Your task to perform on an android device: Is it going to rain this weekend? Image 0: 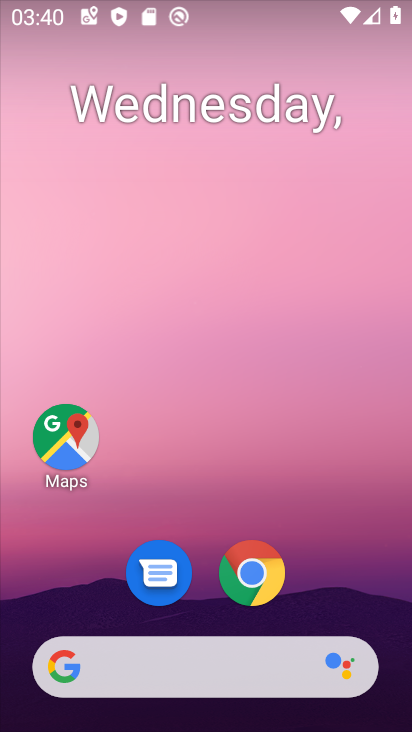
Step 0: drag from (335, 577) to (245, 70)
Your task to perform on an android device: Is it going to rain this weekend? Image 1: 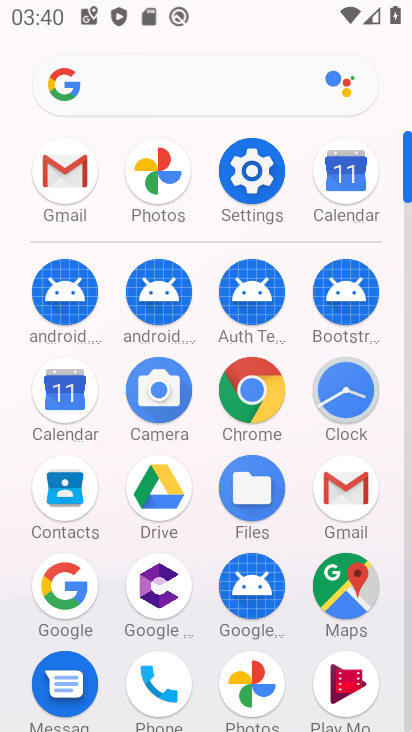
Step 1: click (59, 585)
Your task to perform on an android device: Is it going to rain this weekend? Image 2: 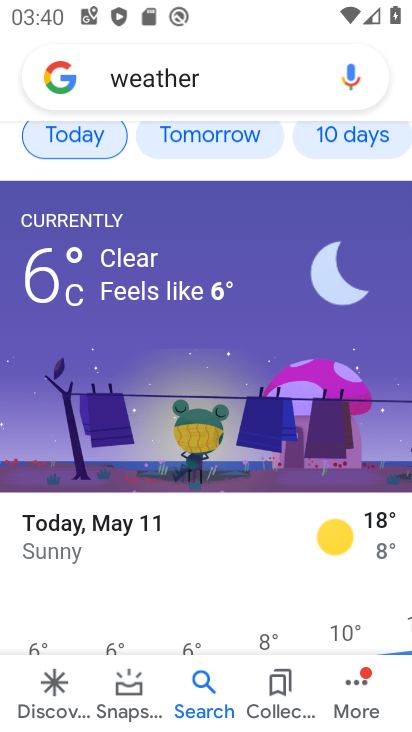
Step 2: drag from (210, 219) to (239, 396)
Your task to perform on an android device: Is it going to rain this weekend? Image 3: 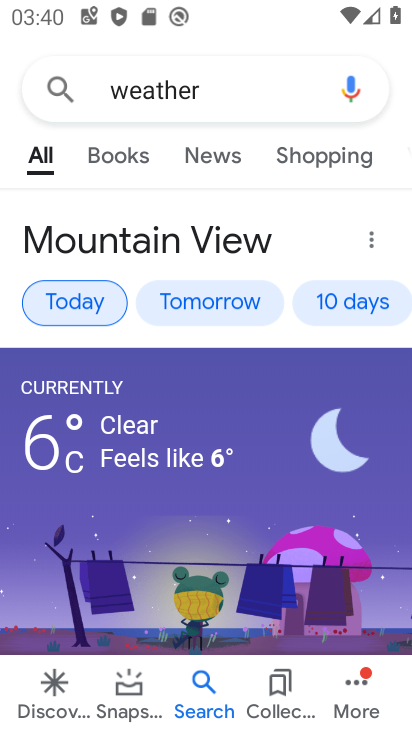
Step 3: click (341, 303)
Your task to perform on an android device: Is it going to rain this weekend? Image 4: 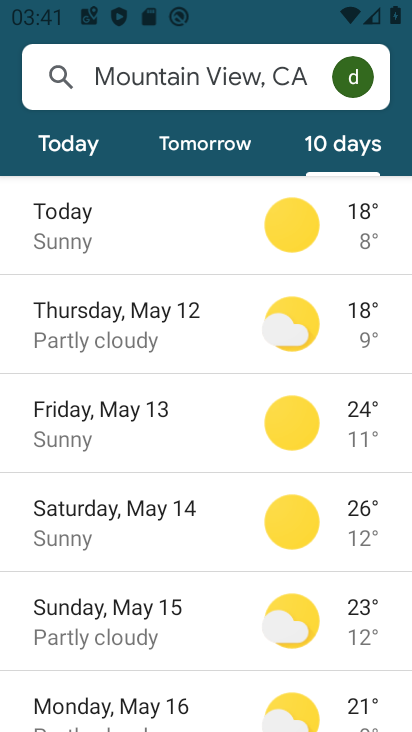
Step 4: task complete